Your task to perform on an android device: turn on translation in the chrome app Image 0: 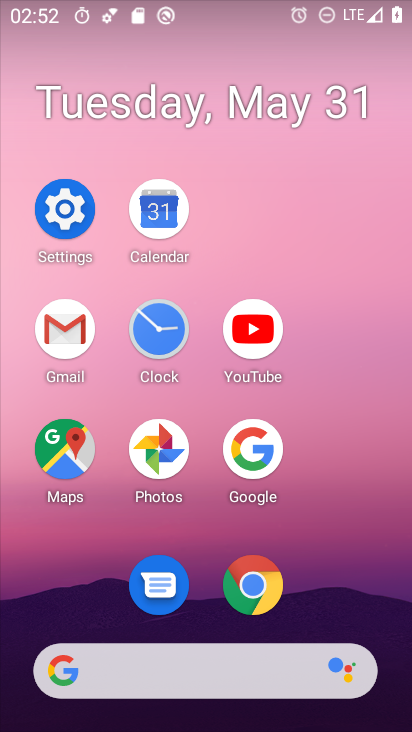
Step 0: click (247, 607)
Your task to perform on an android device: turn on translation in the chrome app Image 1: 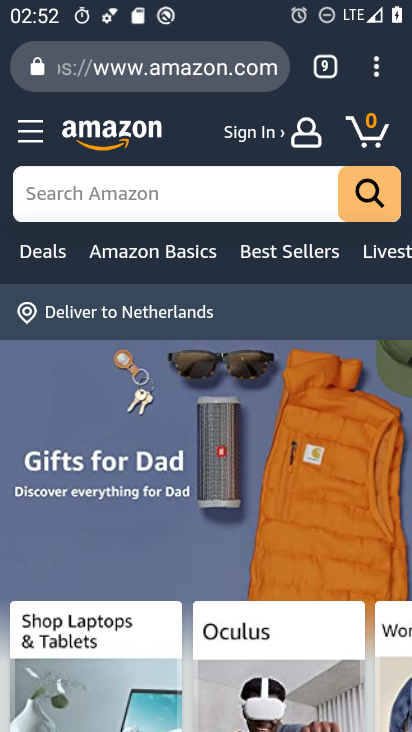
Step 1: click (386, 79)
Your task to perform on an android device: turn on translation in the chrome app Image 2: 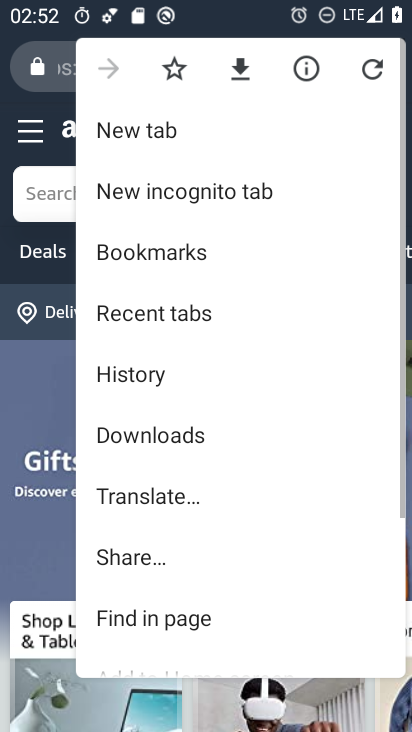
Step 2: drag from (252, 591) to (263, 171)
Your task to perform on an android device: turn on translation in the chrome app Image 3: 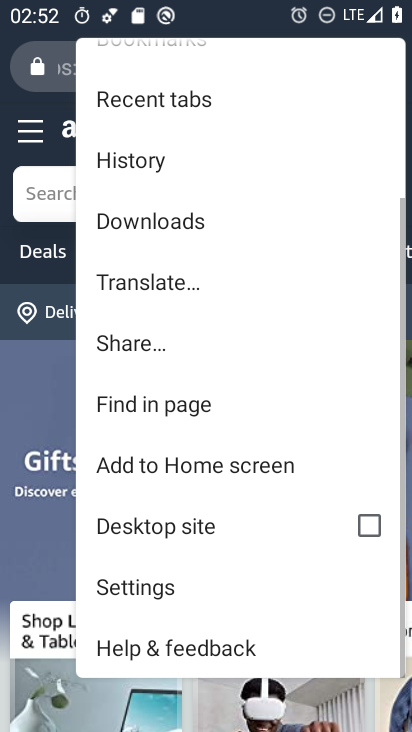
Step 3: click (164, 597)
Your task to perform on an android device: turn on translation in the chrome app Image 4: 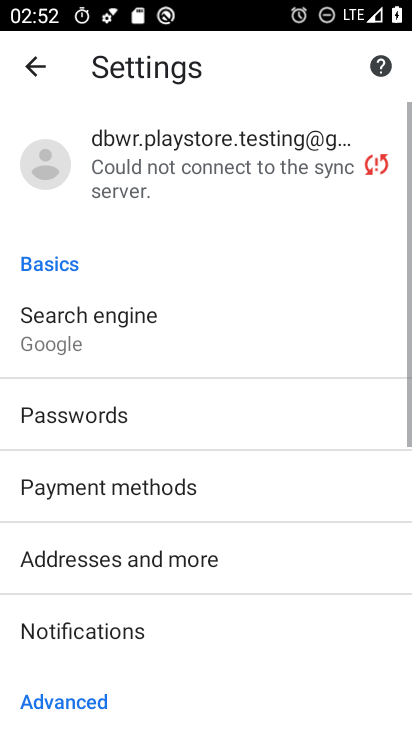
Step 4: drag from (255, 573) to (240, 168)
Your task to perform on an android device: turn on translation in the chrome app Image 5: 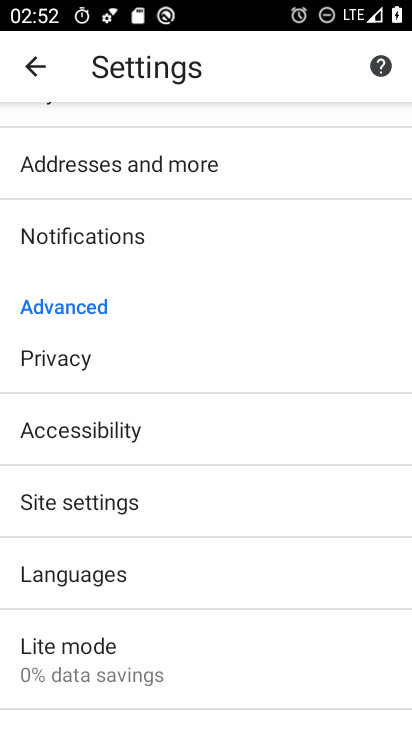
Step 5: click (178, 568)
Your task to perform on an android device: turn on translation in the chrome app Image 6: 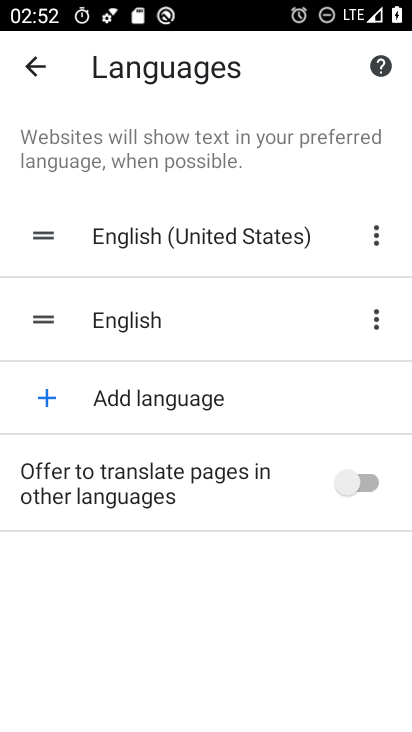
Step 6: click (369, 493)
Your task to perform on an android device: turn on translation in the chrome app Image 7: 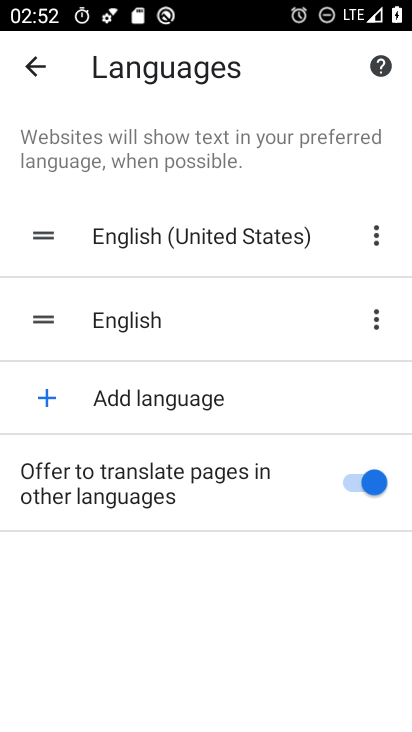
Step 7: task complete